Your task to perform on an android device: turn on improve location accuracy Image 0: 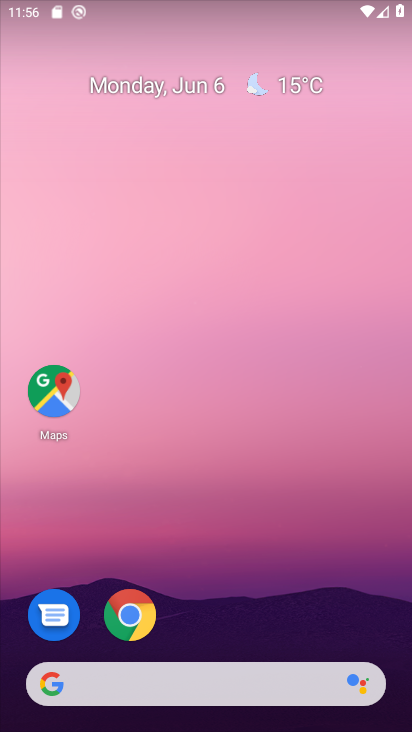
Step 0: drag from (176, 634) to (179, 39)
Your task to perform on an android device: turn on improve location accuracy Image 1: 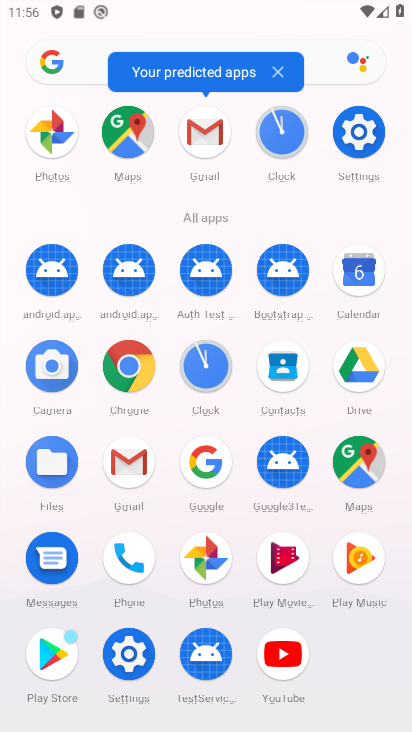
Step 1: click (363, 137)
Your task to perform on an android device: turn on improve location accuracy Image 2: 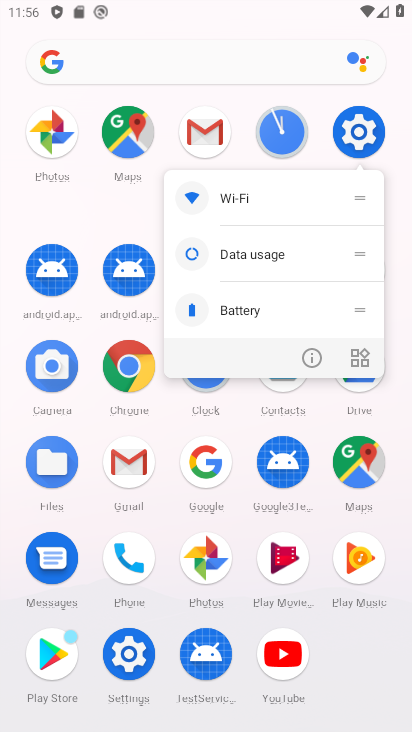
Step 2: click (366, 126)
Your task to perform on an android device: turn on improve location accuracy Image 3: 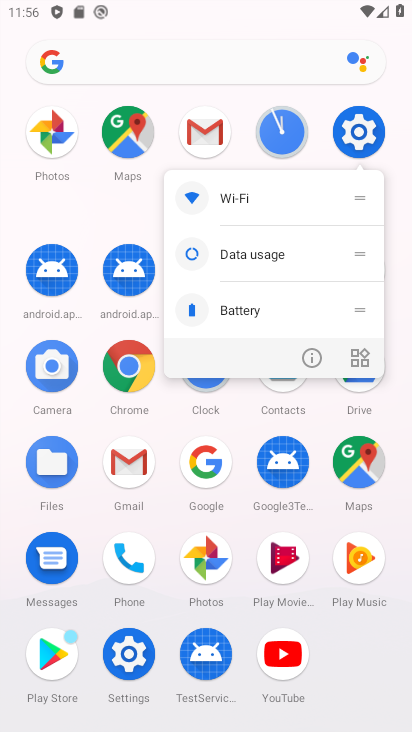
Step 3: click (348, 146)
Your task to perform on an android device: turn on improve location accuracy Image 4: 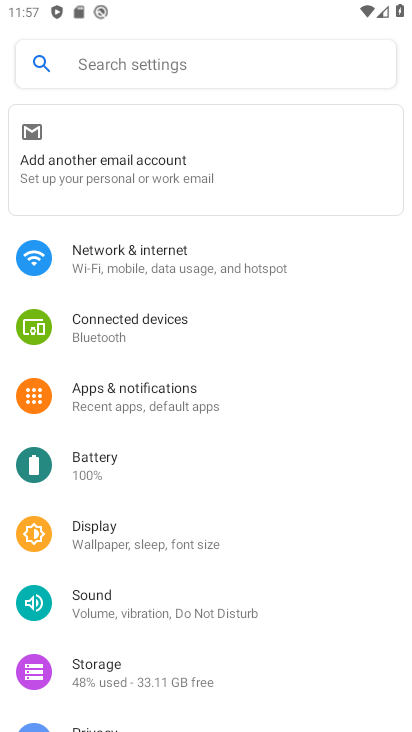
Step 4: drag from (124, 651) to (113, 375)
Your task to perform on an android device: turn on improve location accuracy Image 5: 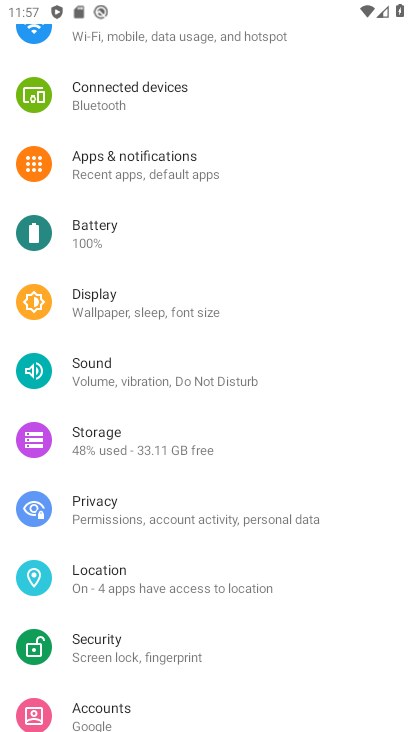
Step 5: click (74, 576)
Your task to perform on an android device: turn on improve location accuracy Image 6: 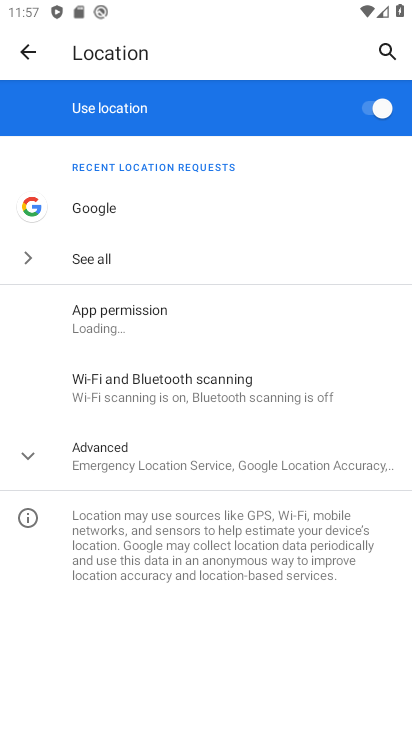
Step 6: click (144, 461)
Your task to perform on an android device: turn on improve location accuracy Image 7: 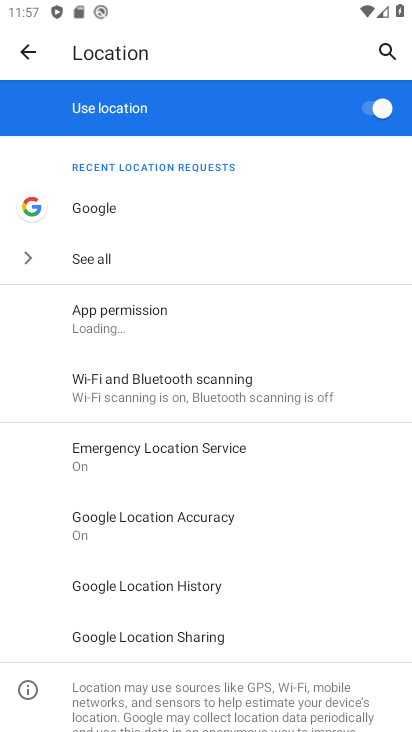
Step 7: click (151, 524)
Your task to perform on an android device: turn on improve location accuracy Image 8: 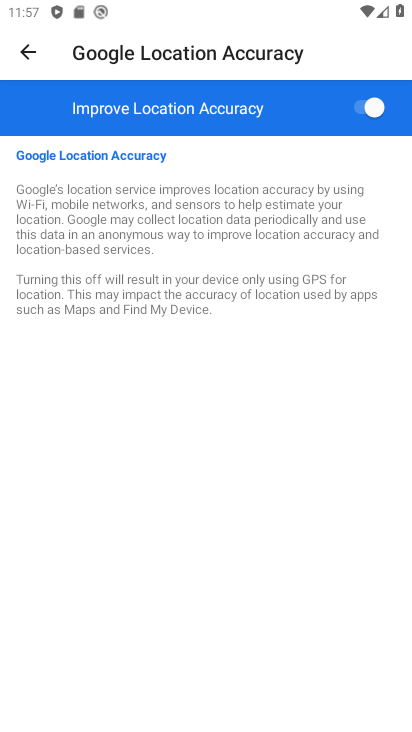
Step 8: task complete